Your task to perform on an android device: Go to Yahoo.com Image 0: 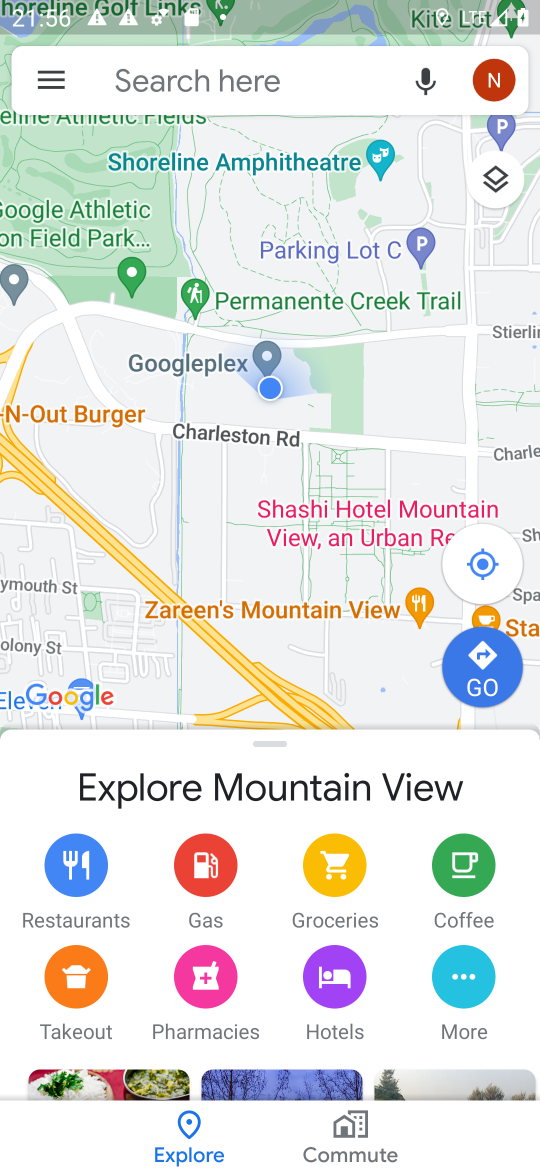
Step 0: press home button
Your task to perform on an android device: Go to Yahoo.com Image 1: 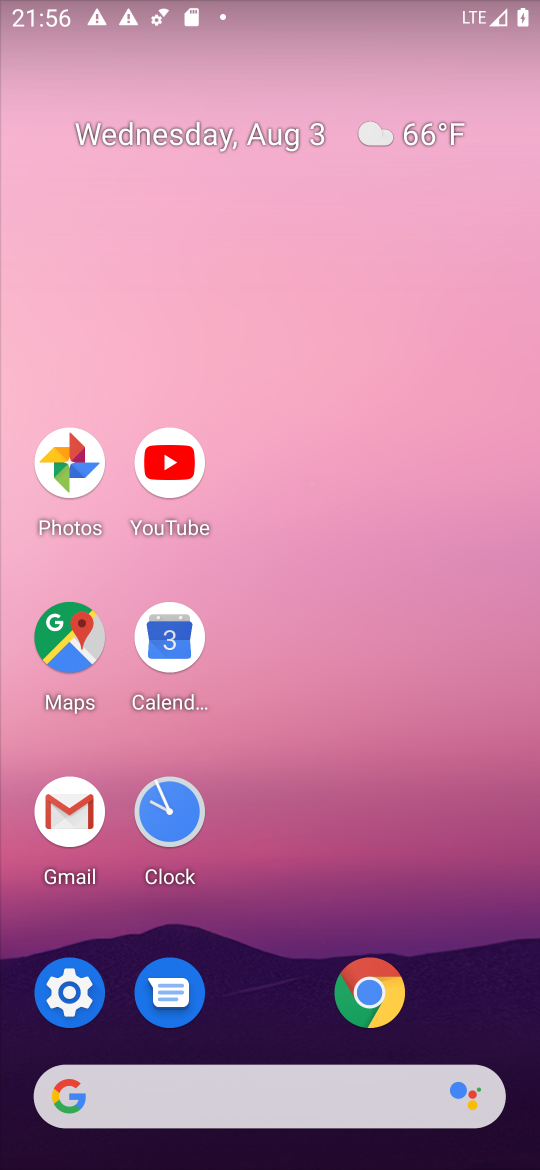
Step 1: click (374, 1003)
Your task to perform on an android device: Go to Yahoo.com Image 2: 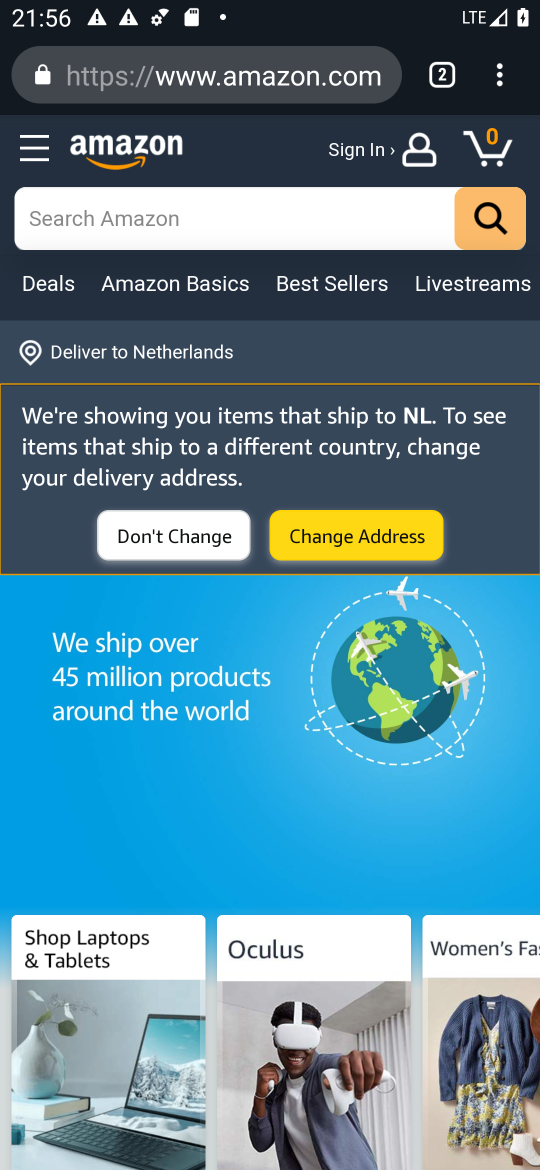
Step 2: click (515, 70)
Your task to perform on an android device: Go to Yahoo.com Image 3: 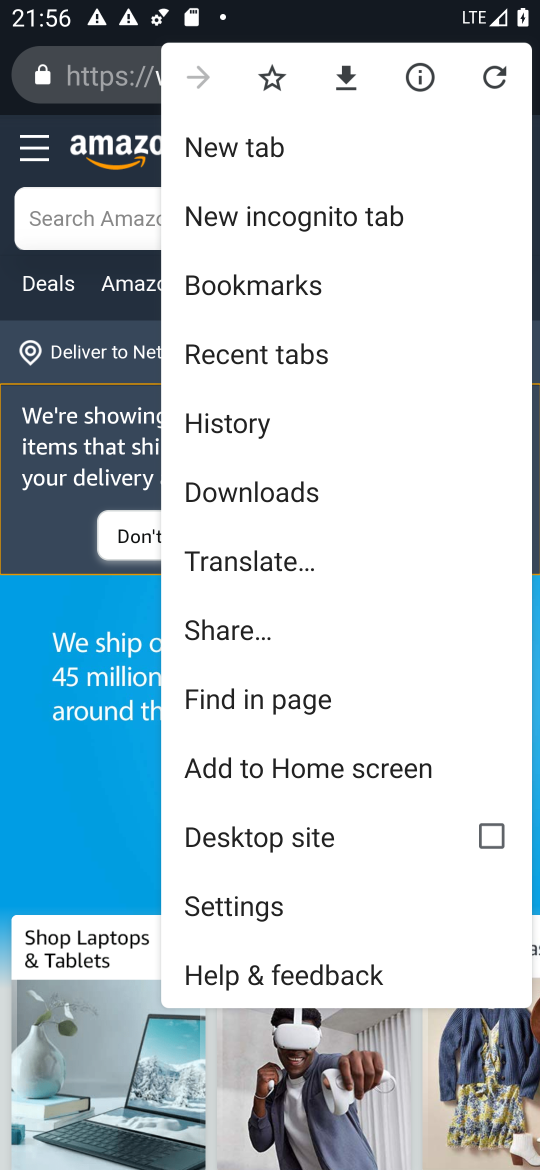
Step 3: click (250, 140)
Your task to perform on an android device: Go to Yahoo.com Image 4: 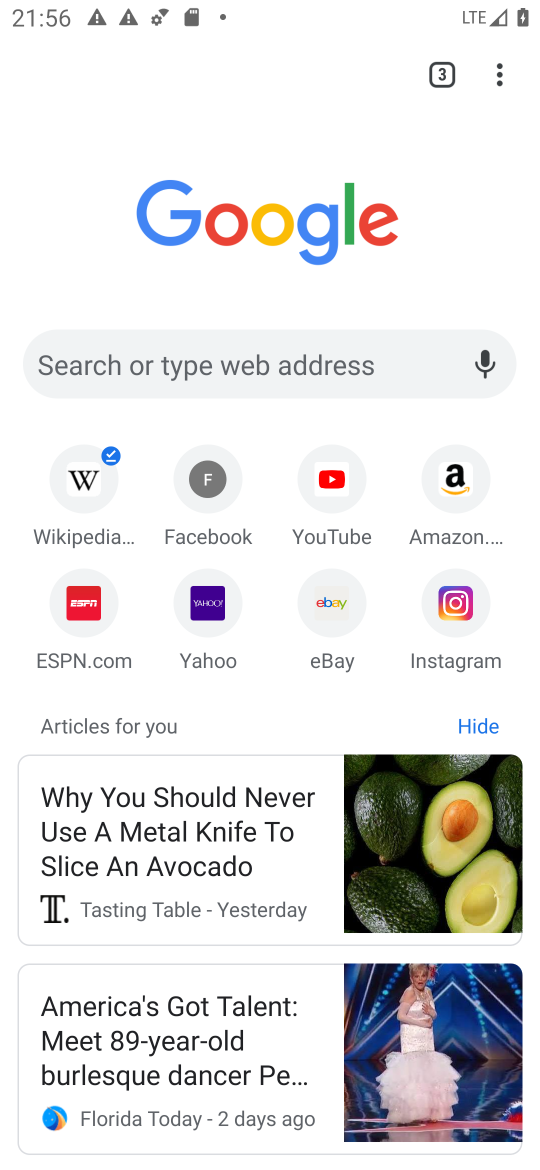
Step 4: click (201, 602)
Your task to perform on an android device: Go to Yahoo.com Image 5: 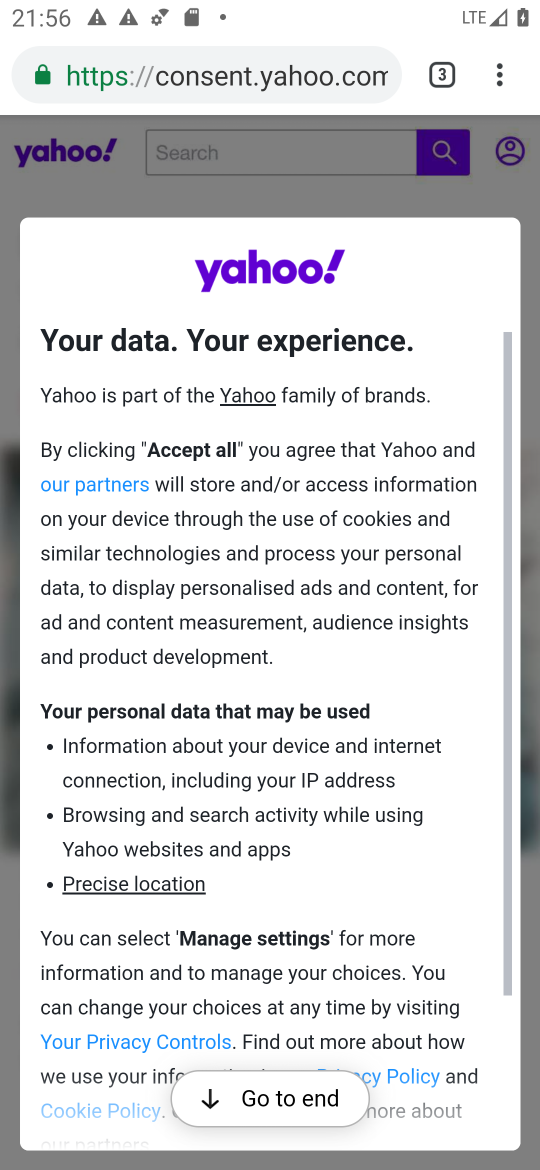
Step 5: click (248, 1088)
Your task to perform on an android device: Go to Yahoo.com Image 6: 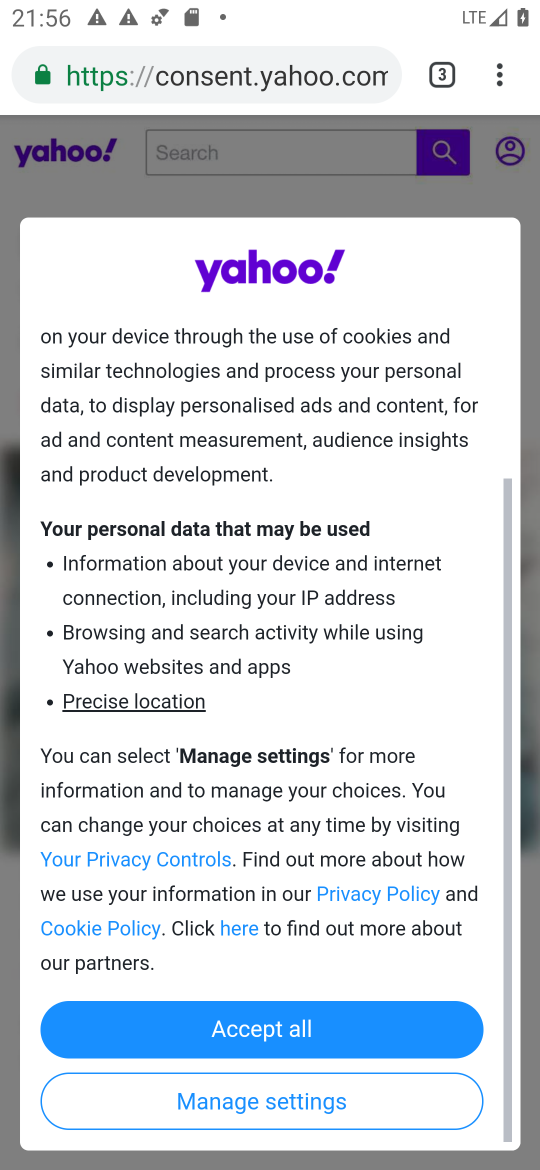
Step 6: click (259, 1040)
Your task to perform on an android device: Go to Yahoo.com Image 7: 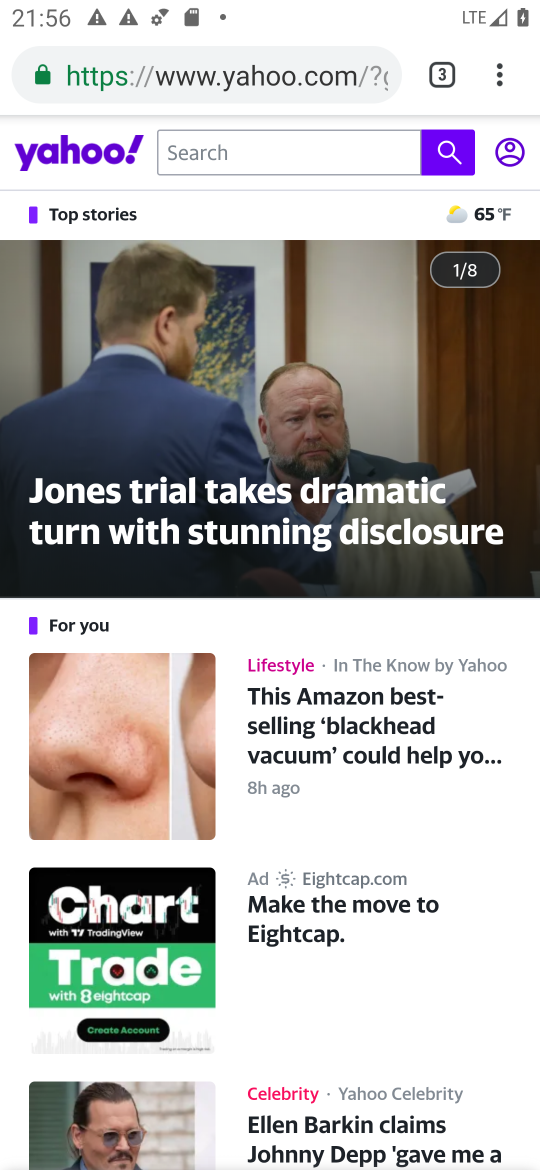
Step 7: task complete